Your task to perform on an android device: clear all cookies in the chrome app Image 0: 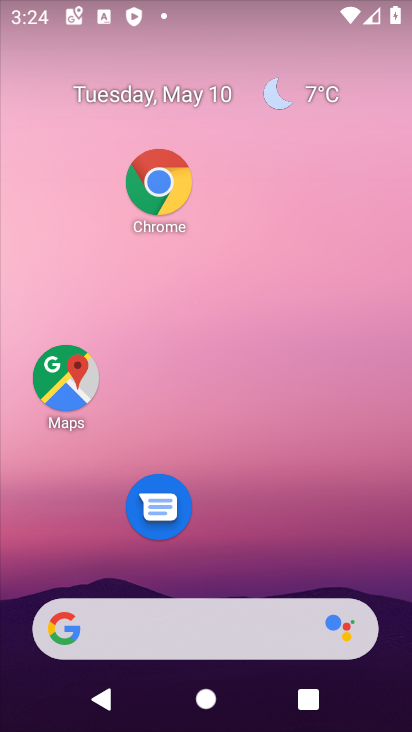
Step 0: click (278, 544)
Your task to perform on an android device: clear all cookies in the chrome app Image 1: 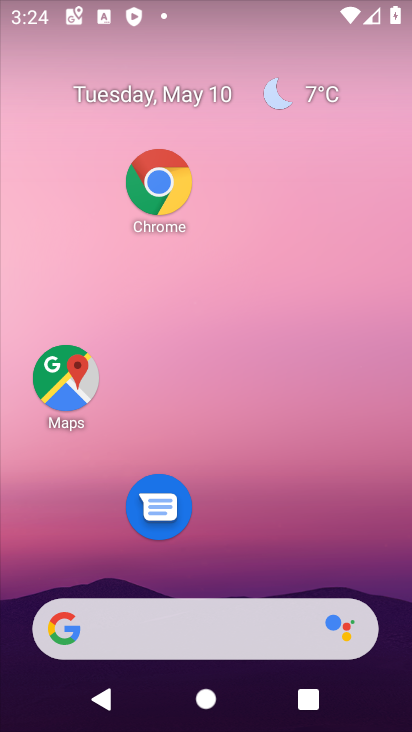
Step 1: click (154, 190)
Your task to perform on an android device: clear all cookies in the chrome app Image 2: 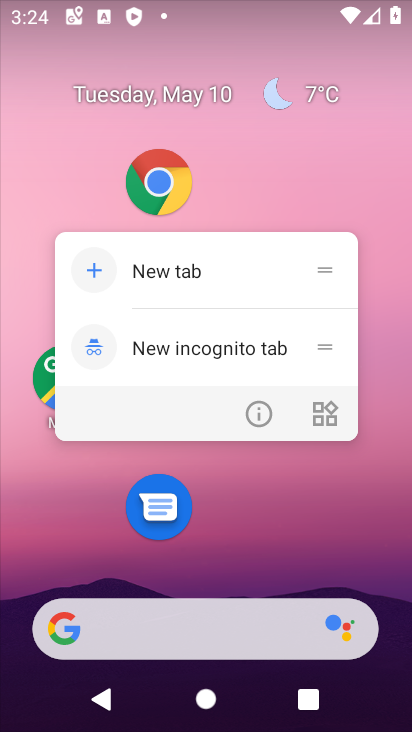
Step 2: click (154, 190)
Your task to perform on an android device: clear all cookies in the chrome app Image 3: 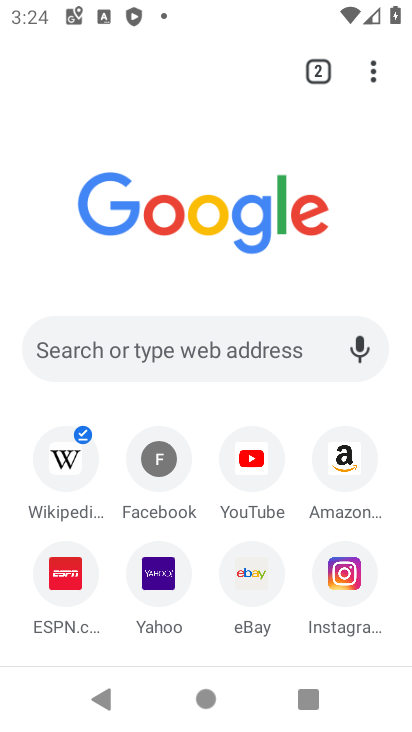
Step 3: click (373, 87)
Your task to perform on an android device: clear all cookies in the chrome app Image 4: 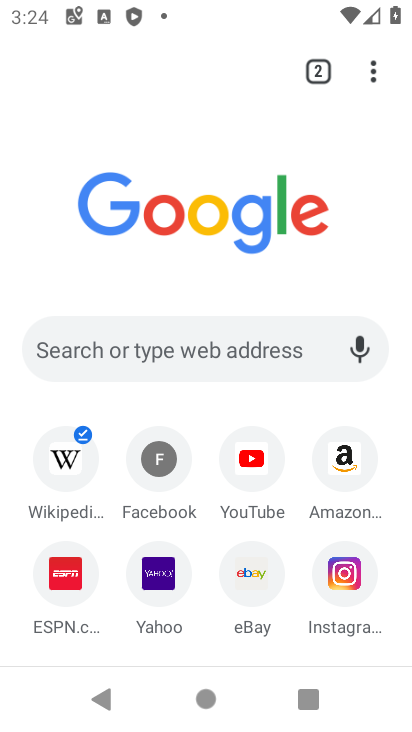
Step 4: click (361, 80)
Your task to perform on an android device: clear all cookies in the chrome app Image 5: 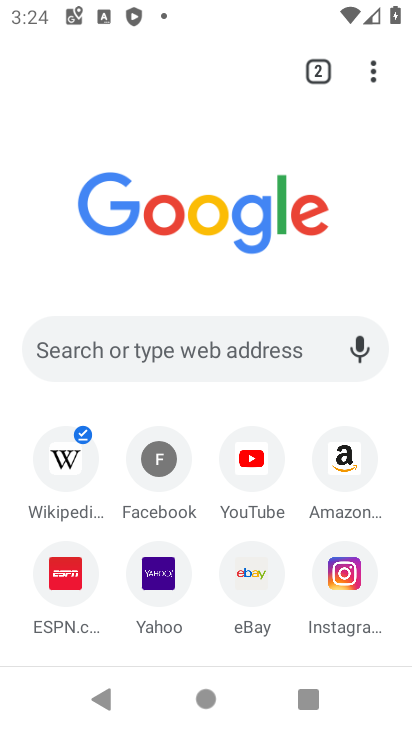
Step 5: click (361, 80)
Your task to perform on an android device: clear all cookies in the chrome app Image 6: 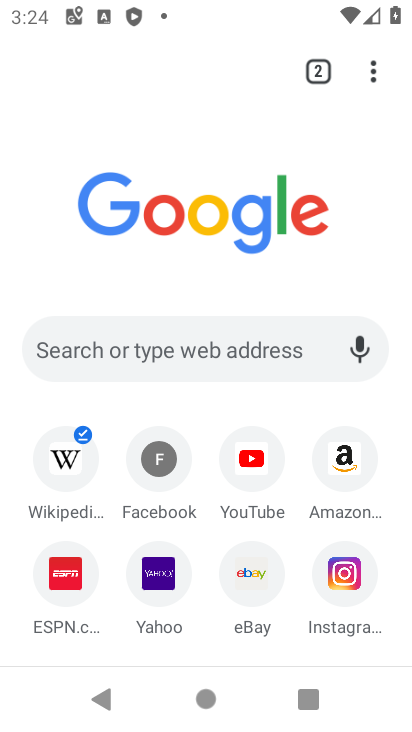
Step 6: click (361, 65)
Your task to perform on an android device: clear all cookies in the chrome app Image 7: 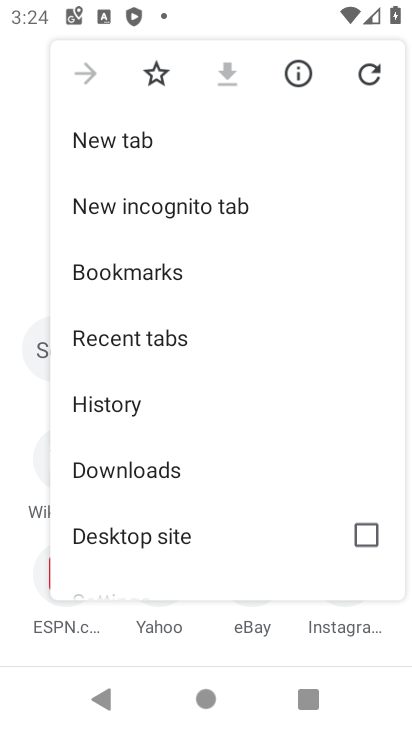
Step 7: drag from (171, 493) to (151, 98)
Your task to perform on an android device: clear all cookies in the chrome app Image 8: 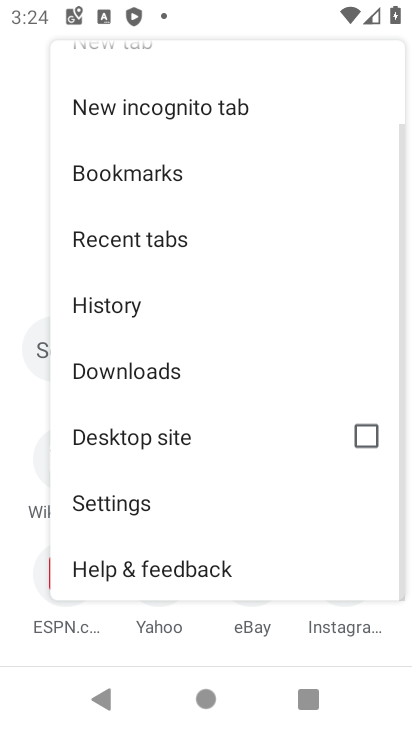
Step 8: click (171, 523)
Your task to perform on an android device: clear all cookies in the chrome app Image 9: 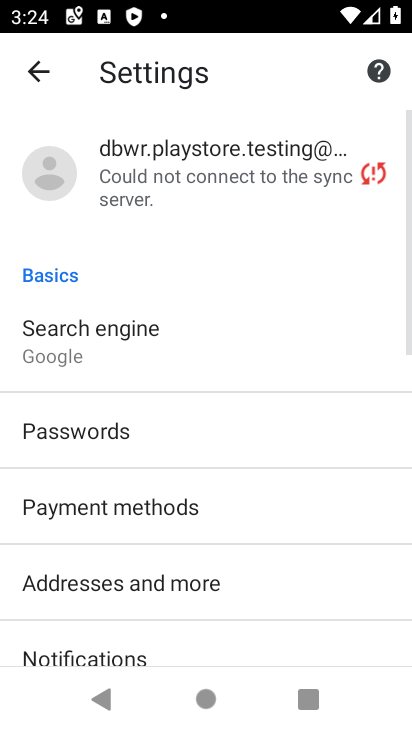
Step 9: drag from (171, 523) to (131, 224)
Your task to perform on an android device: clear all cookies in the chrome app Image 10: 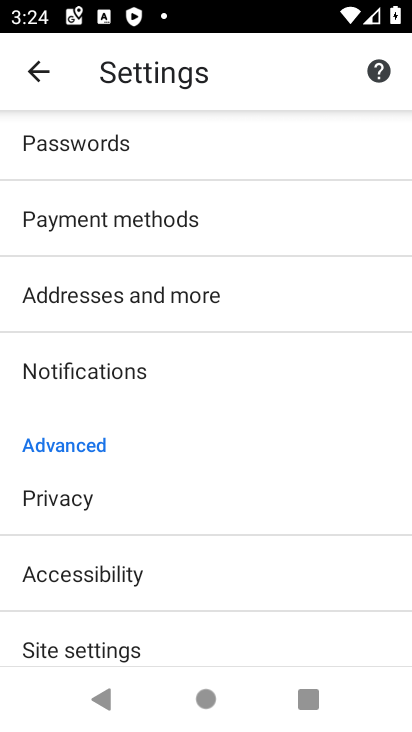
Step 10: drag from (188, 614) to (146, 382)
Your task to perform on an android device: clear all cookies in the chrome app Image 11: 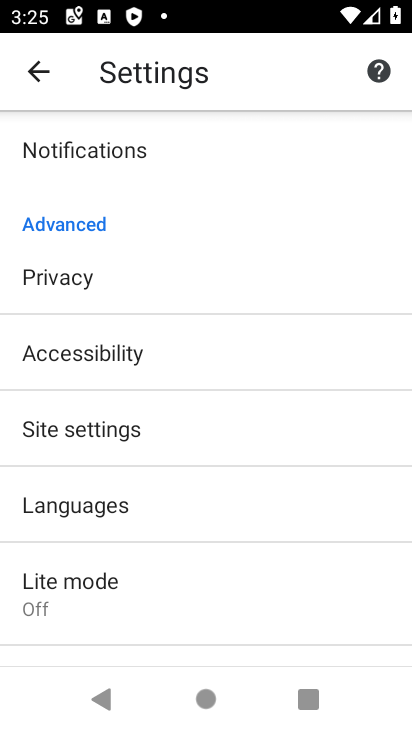
Step 11: click (152, 434)
Your task to perform on an android device: clear all cookies in the chrome app Image 12: 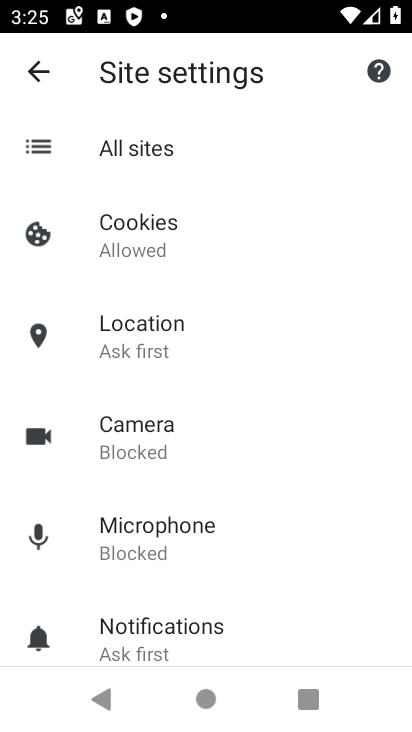
Step 12: click (25, 63)
Your task to perform on an android device: clear all cookies in the chrome app Image 13: 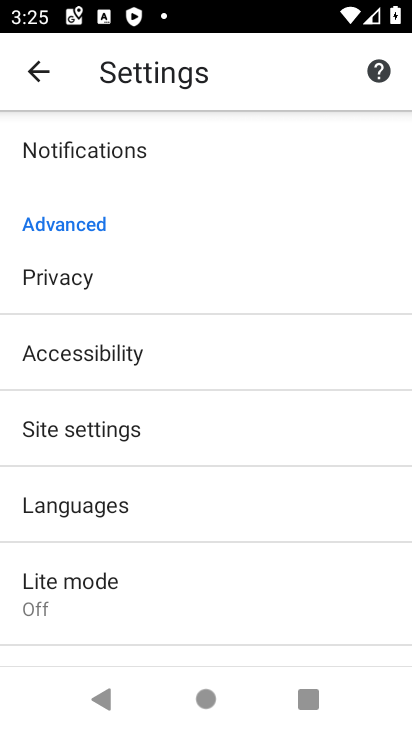
Step 13: drag from (93, 279) to (55, 699)
Your task to perform on an android device: clear all cookies in the chrome app Image 14: 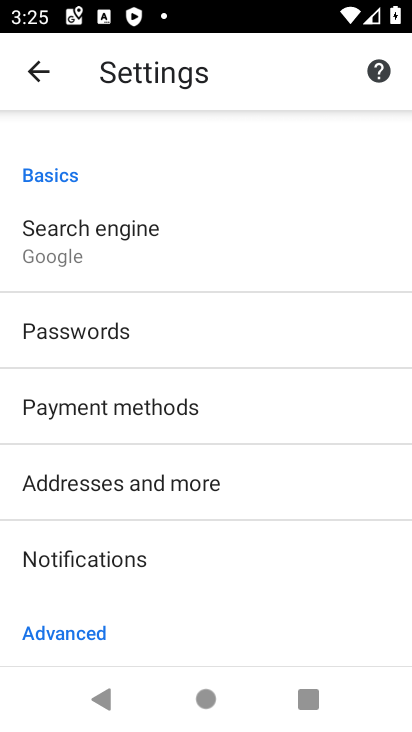
Step 14: click (20, 100)
Your task to perform on an android device: clear all cookies in the chrome app Image 15: 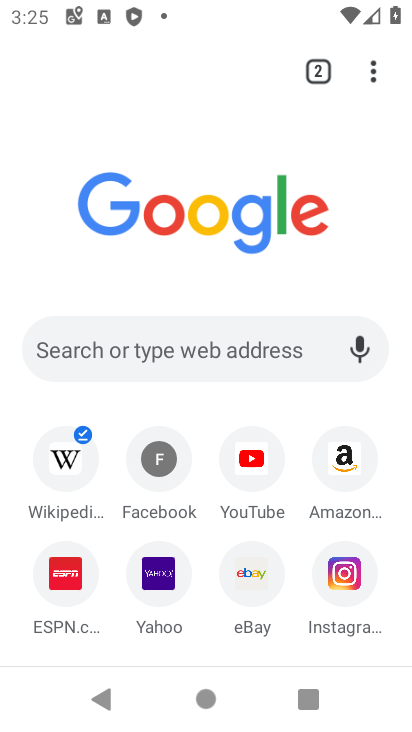
Step 15: click (371, 84)
Your task to perform on an android device: clear all cookies in the chrome app Image 16: 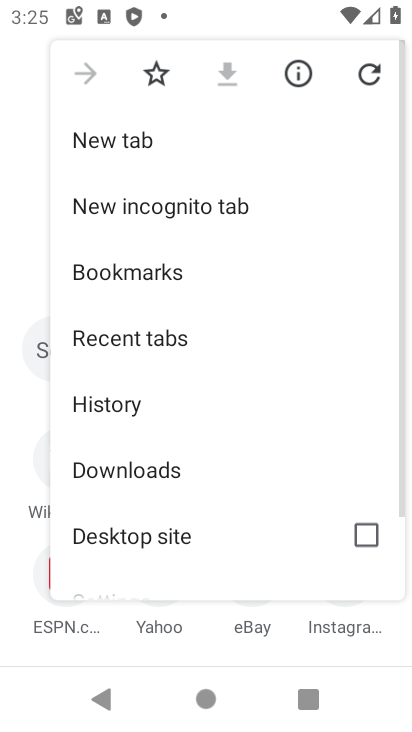
Step 16: click (191, 386)
Your task to perform on an android device: clear all cookies in the chrome app Image 17: 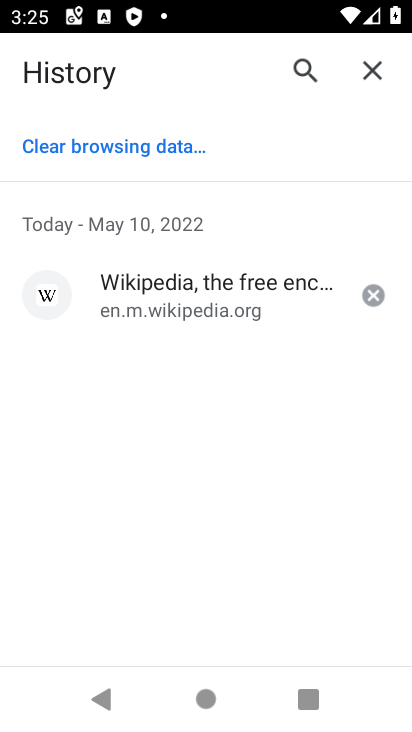
Step 17: click (129, 137)
Your task to perform on an android device: clear all cookies in the chrome app Image 18: 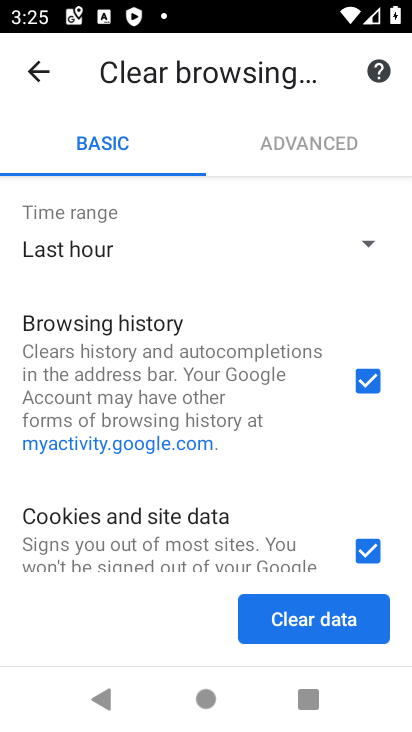
Step 18: click (351, 378)
Your task to perform on an android device: clear all cookies in the chrome app Image 19: 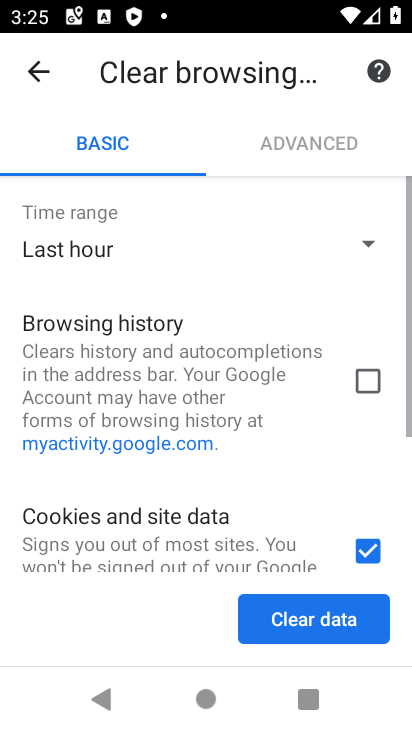
Step 19: click (334, 633)
Your task to perform on an android device: clear all cookies in the chrome app Image 20: 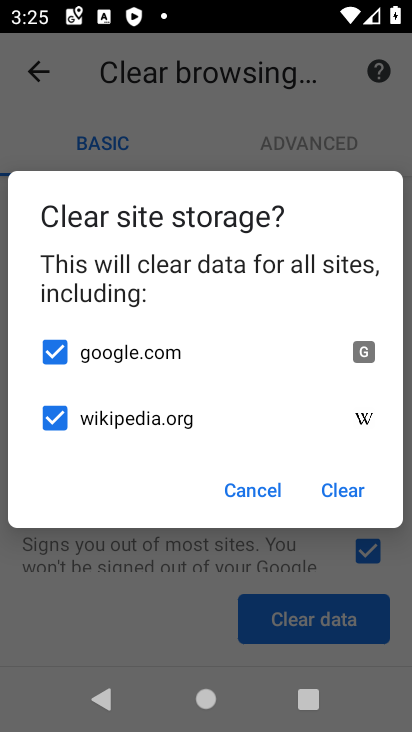
Step 20: click (329, 504)
Your task to perform on an android device: clear all cookies in the chrome app Image 21: 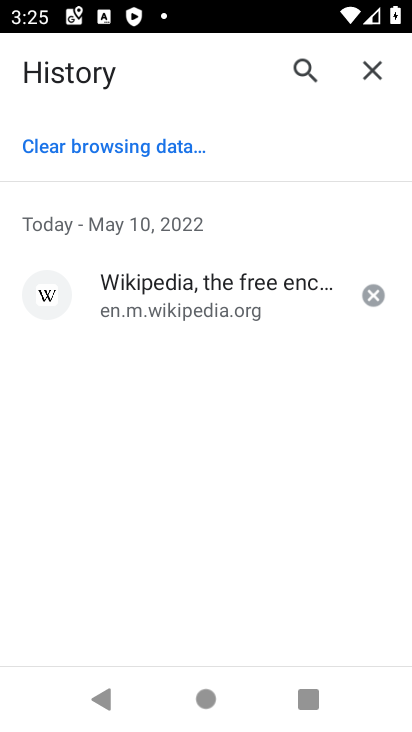
Step 21: task complete